Your task to perform on an android device: toggle javascript in the chrome app Image 0: 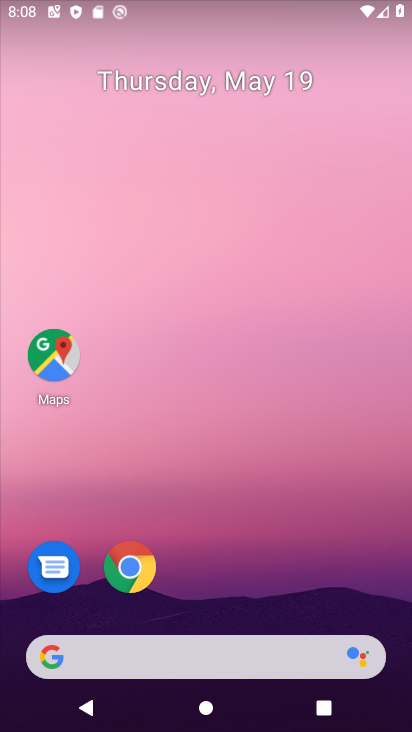
Step 0: click (133, 568)
Your task to perform on an android device: toggle javascript in the chrome app Image 1: 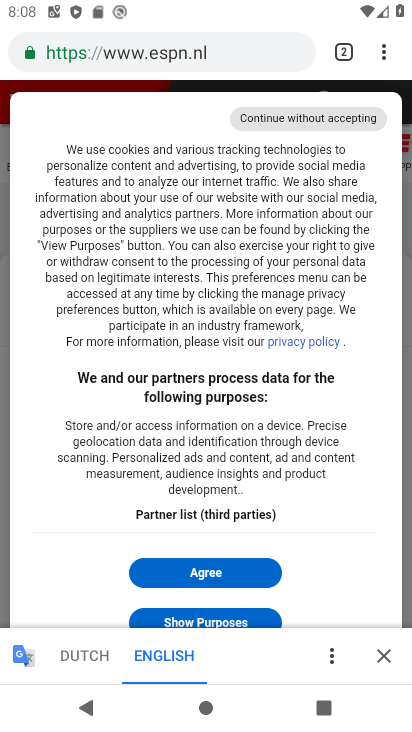
Step 1: click (388, 63)
Your task to perform on an android device: toggle javascript in the chrome app Image 2: 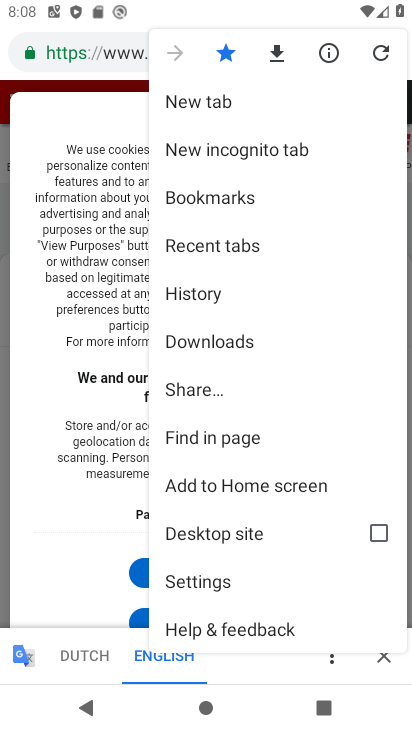
Step 2: click (196, 579)
Your task to perform on an android device: toggle javascript in the chrome app Image 3: 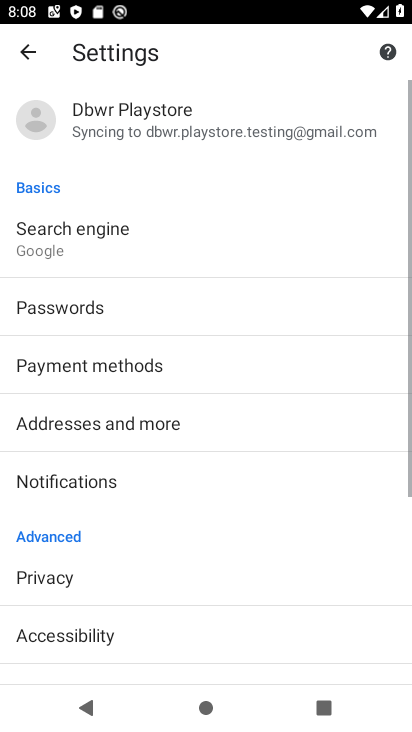
Step 3: drag from (196, 579) to (233, 151)
Your task to perform on an android device: toggle javascript in the chrome app Image 4: 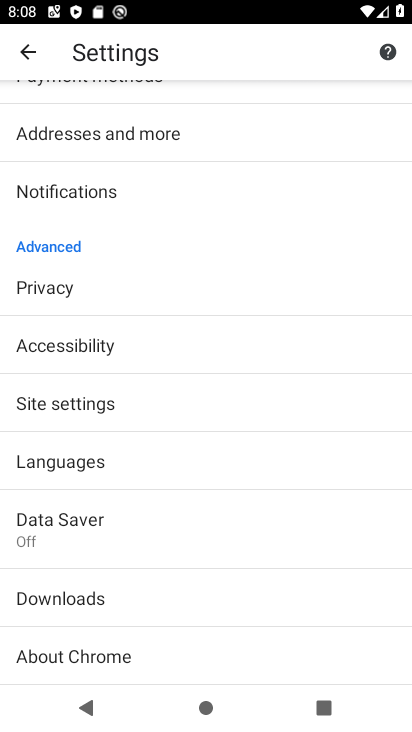
Step 4: click (128, 395)
Your task to perform on an android device: toggle javascript in the chrome app Image 5: 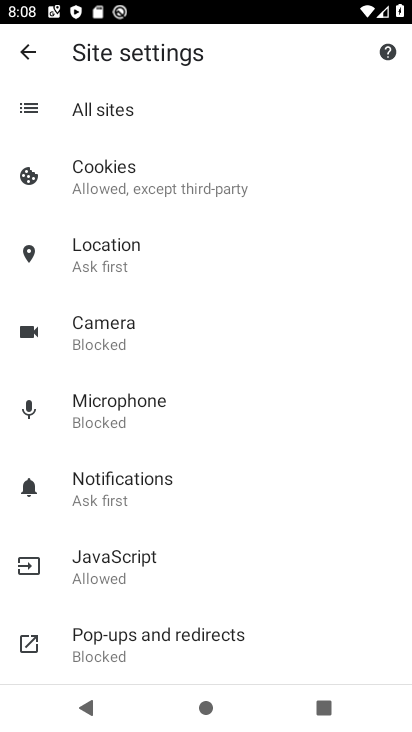
Step 5: click (155, 552)
Your task to perform on an android device: toggle javascript in the chrome app Image 6: 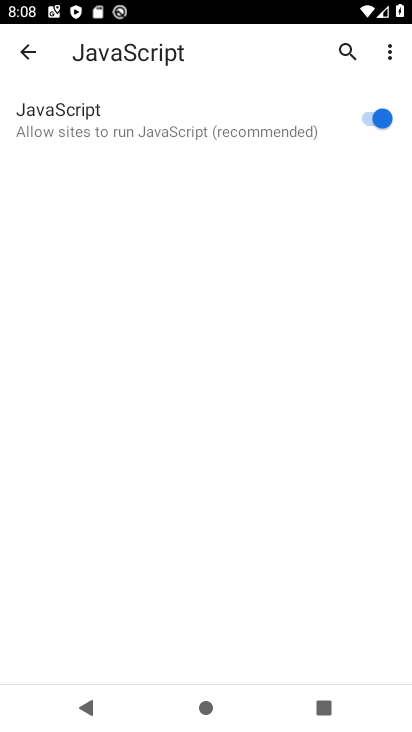
Step 6: task complete